Your task to perform on an android device: turn smart compose on in the gmail app Image 0: 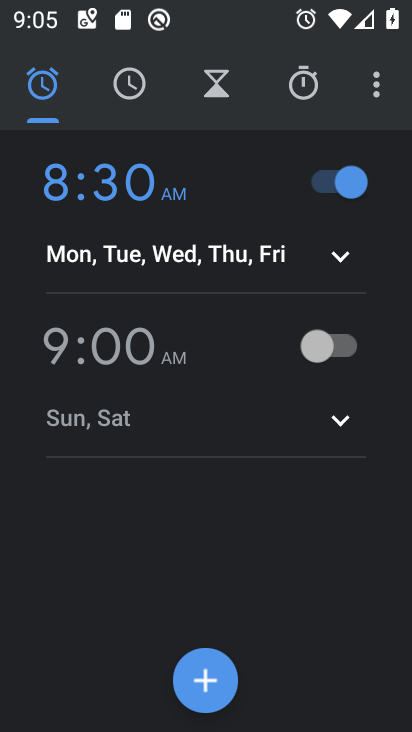
Step 0: press home button
Your task to perform on an android device: turn smart compose on in the gmail app Image 1: 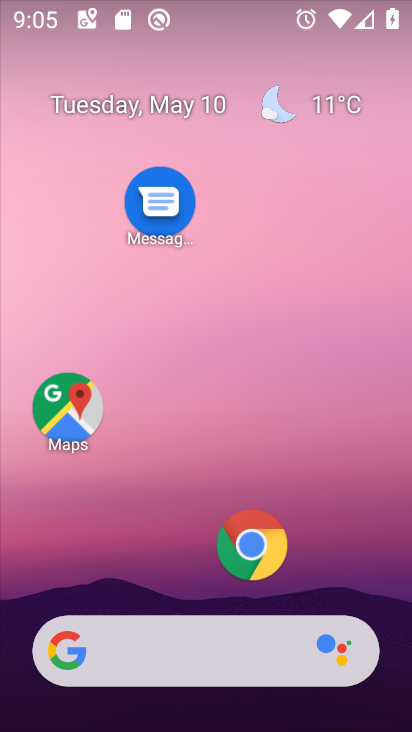
Step 1: drag from (200, 589) to (261, 62)
Your task to perform on an android device: turn smart compose on in the gmail app Image 2: 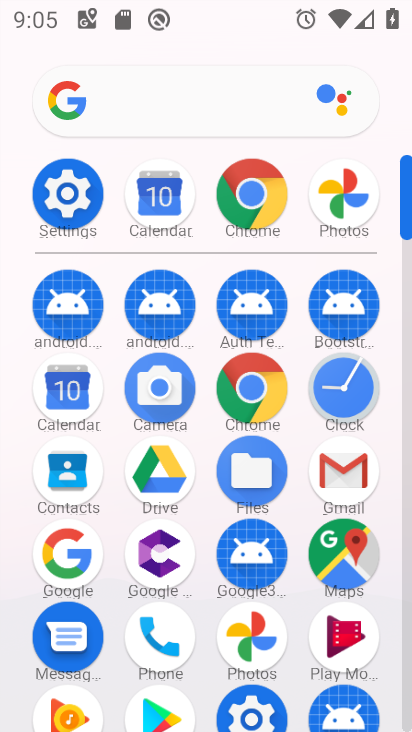
Step 2: click (344, 472)
Your task to perform on an android device: turn smart compose on in the gmail app Image 3: 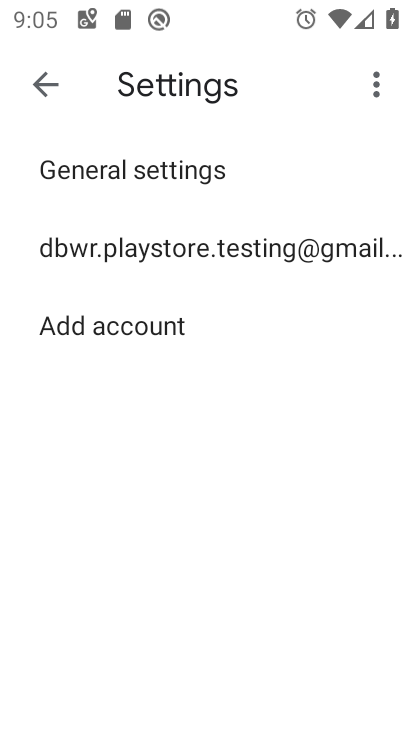
Step 3: click (220, 257)
Your task to perform on an android device: turn smart compose on in the gmail app Image 4: 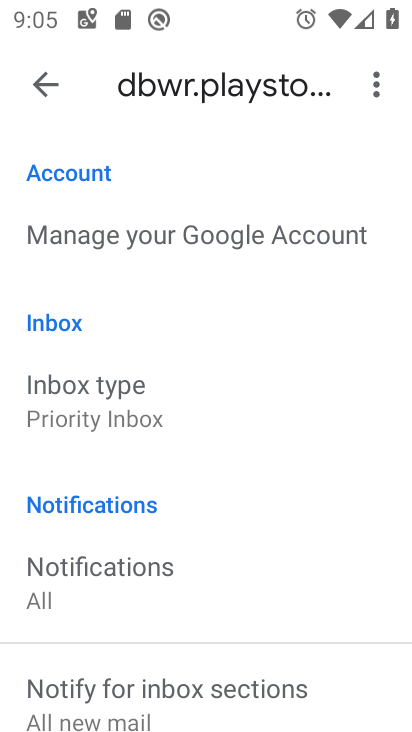
Step 4: task complete